Your task to perform on an android device: Open Google Chrome Image 0: 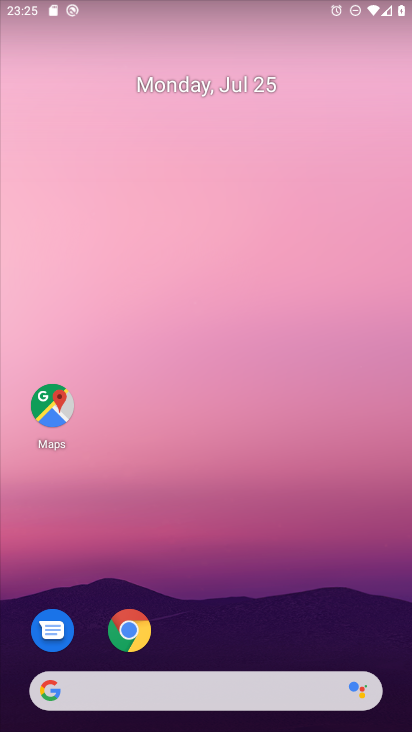
Step 0: click (132, 626)
Your task to perform on an android device: Open Google Chrome Image 1: 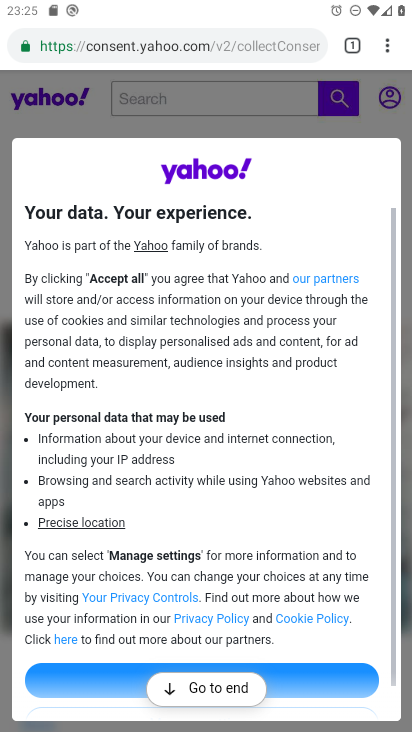
Step 1: task complete